Your task to perform on an android device: delete browsing data in the chrome app Image 0: 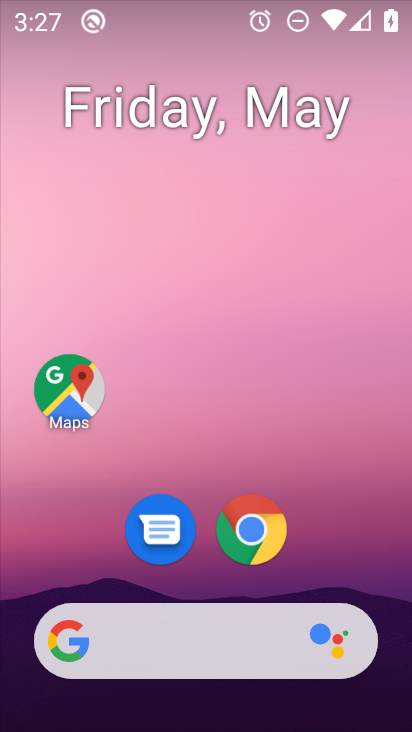
Step 0: drag from (395, 695) to (401, 293)
Your task to perform on an android device: delete browsing data in the chrome app Image 1: 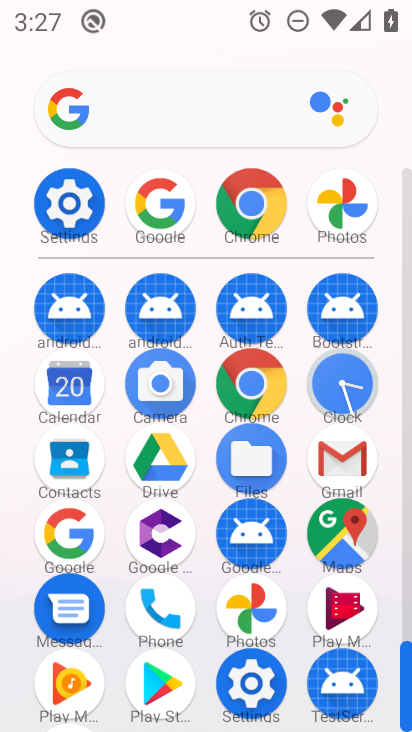
Step 1: click (259, 209)
Your task to perform on an android device: delete browsing data in the chrome app Image 2: 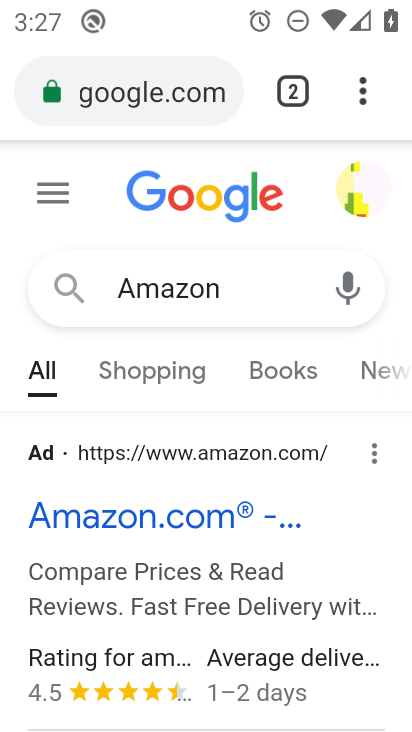
Step 2: click (360, 88)
Your task to perform on an android device: delete browsing data in the chrome app Image 3: 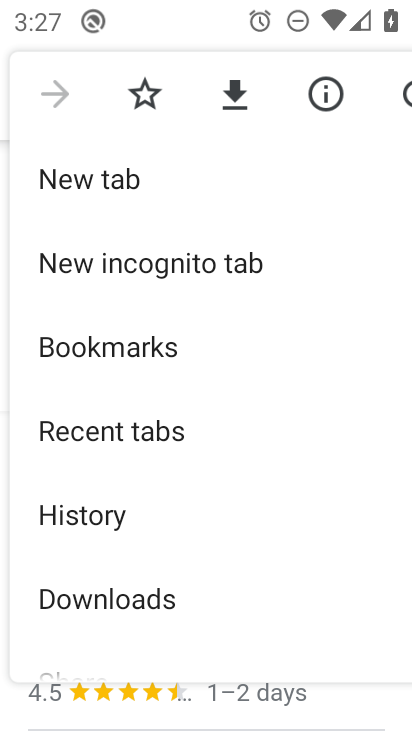
Step 3: click (92, 512)
Your task to perform on an android device: delete browsing data in the chrome app Image 4: 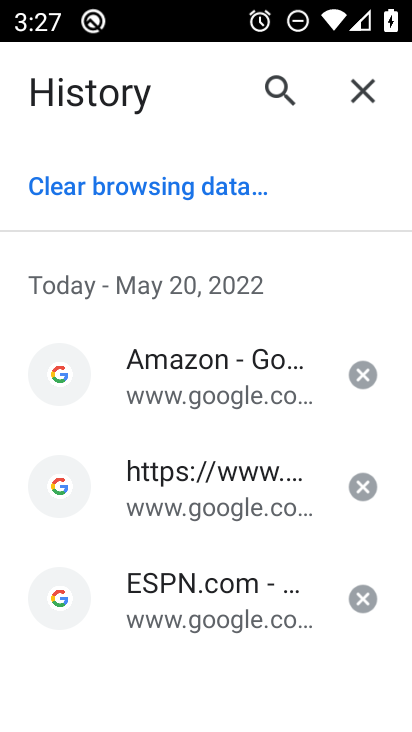
Step 4: click (151, 192)
Your task to perform on an android device: delete browsing data in the chrome app Image 5: 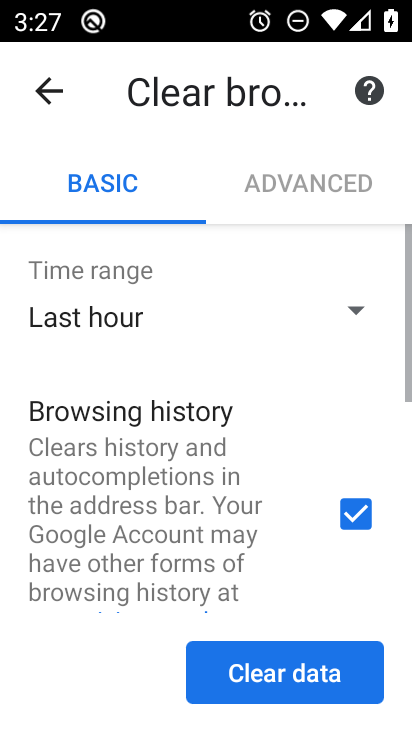
Step 5: click (251, 675)
Your task to perform on an android device: delete browsing data in the chrome app Image 6: 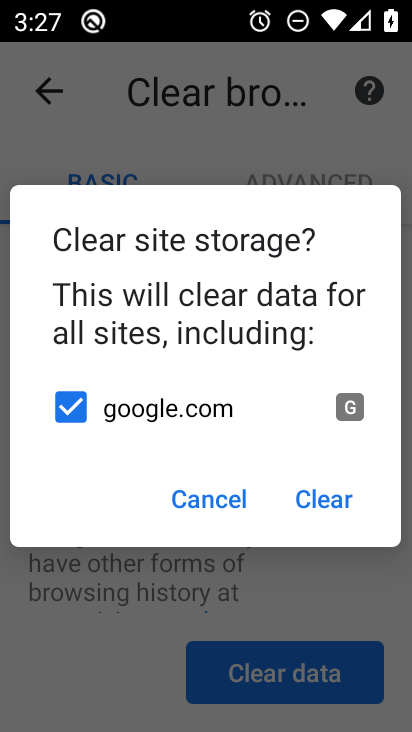
Step 6: click (303, 495)
Your task to perform on an android device: delete browsing data in the chrome app Image 7: 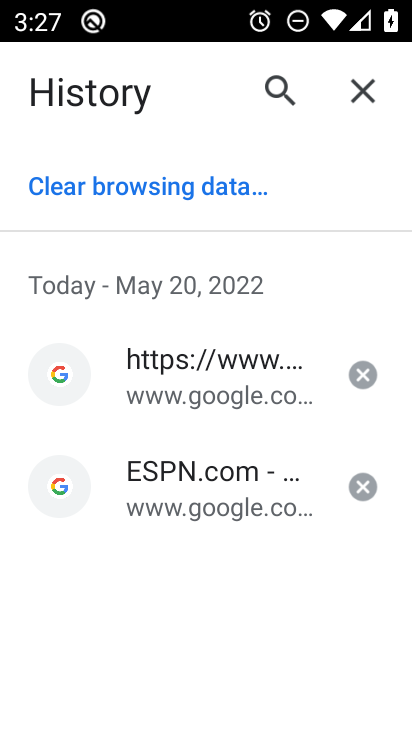
Step 7: task complete